Your task to perform on an android device: Show me popular videos on Youtube Image 0: 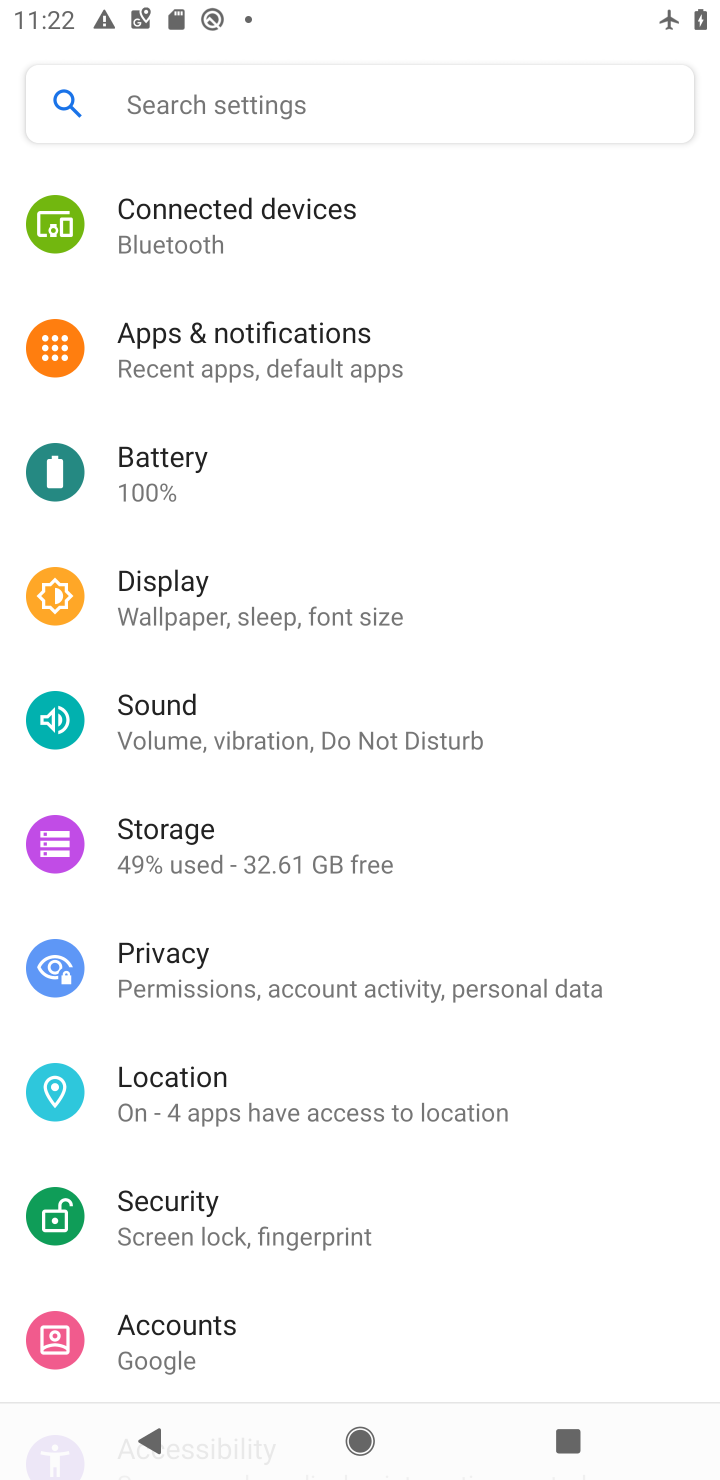
Step 0: press home button
Your task to perform on an android device: Show me popular videos on Youtube Image 1: 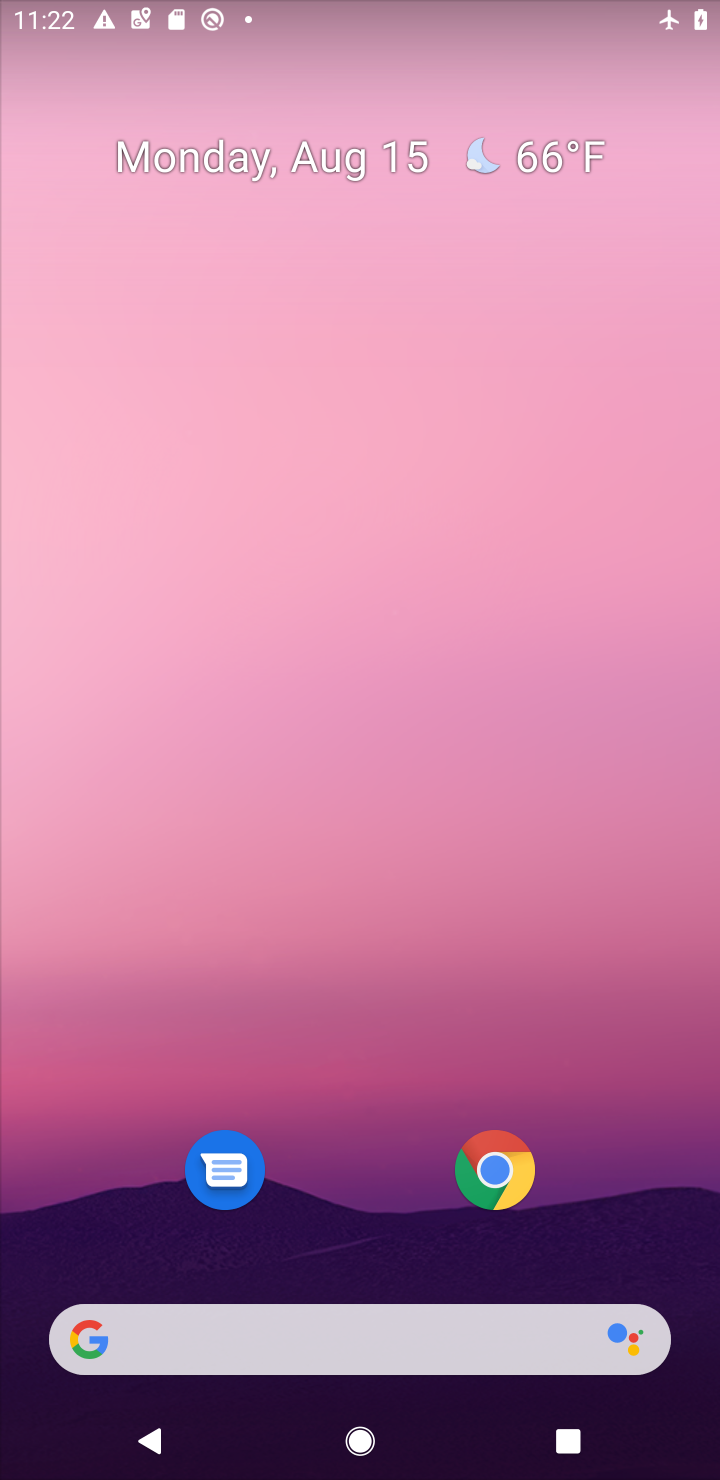
Step 1: drag from (396, 1232) to (407, 0)
Your task to perform on an android device: Show me popular videos on Youtube Image 2: 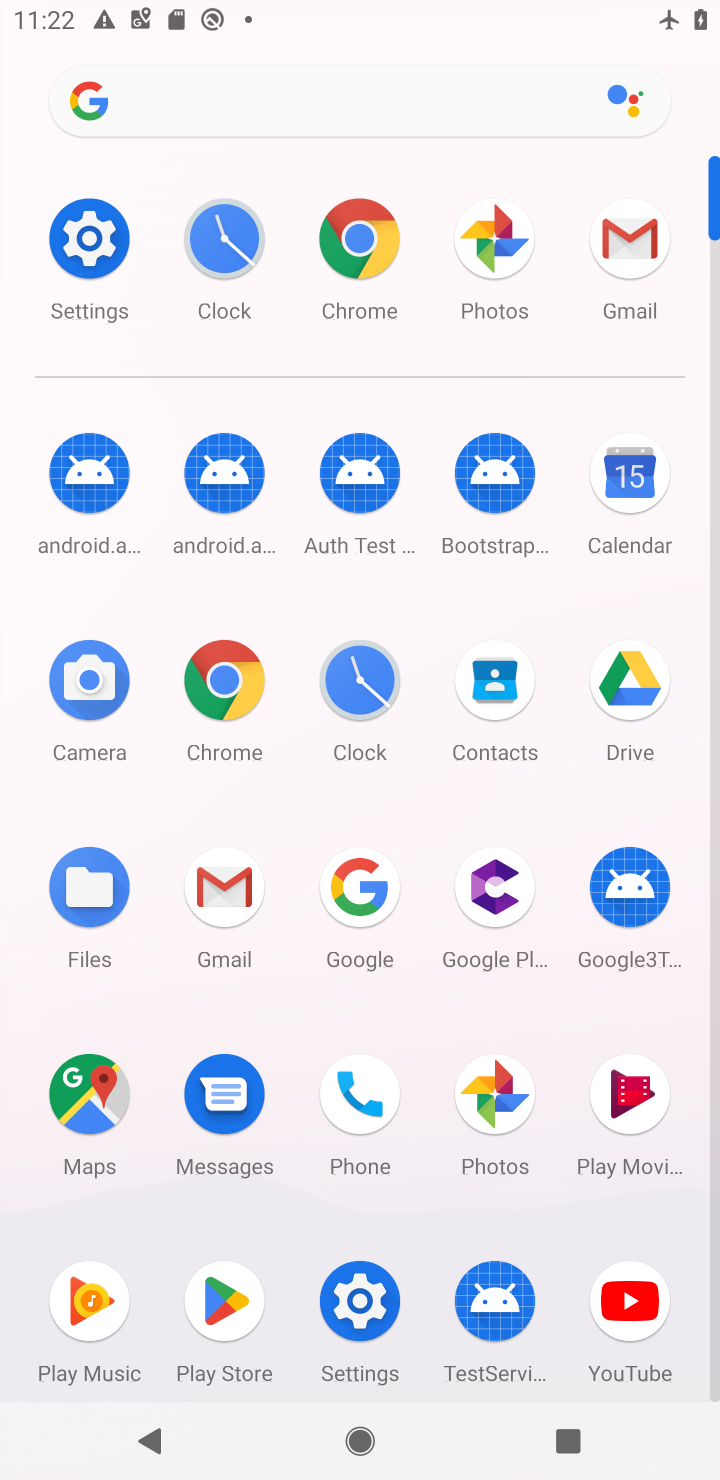
Step 2: click (628, 1292)
Your task to perform on an android device: Show me popular videos on Youtube Image 3: 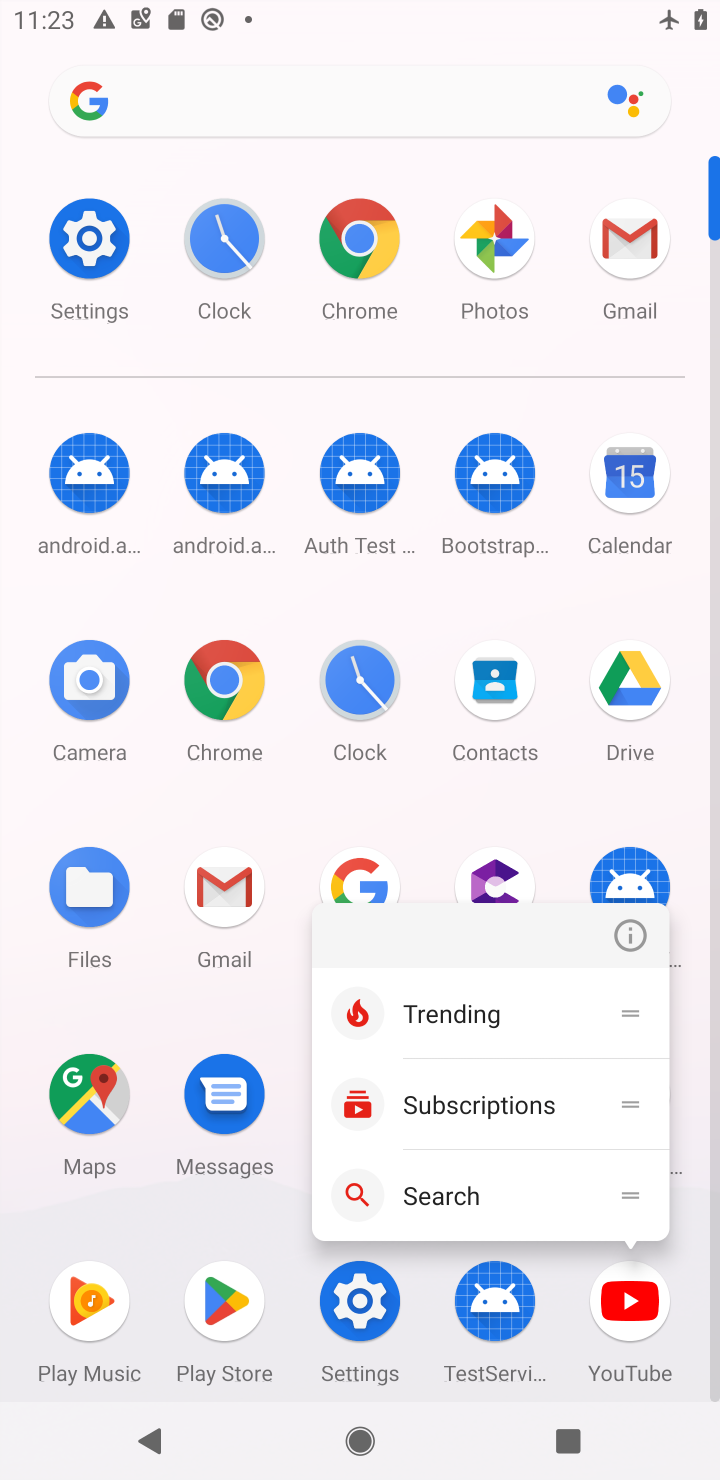
Step 3: click (625, 1299)
Your task to perform on an android device: Show me popular videos on Youtube Image 4: 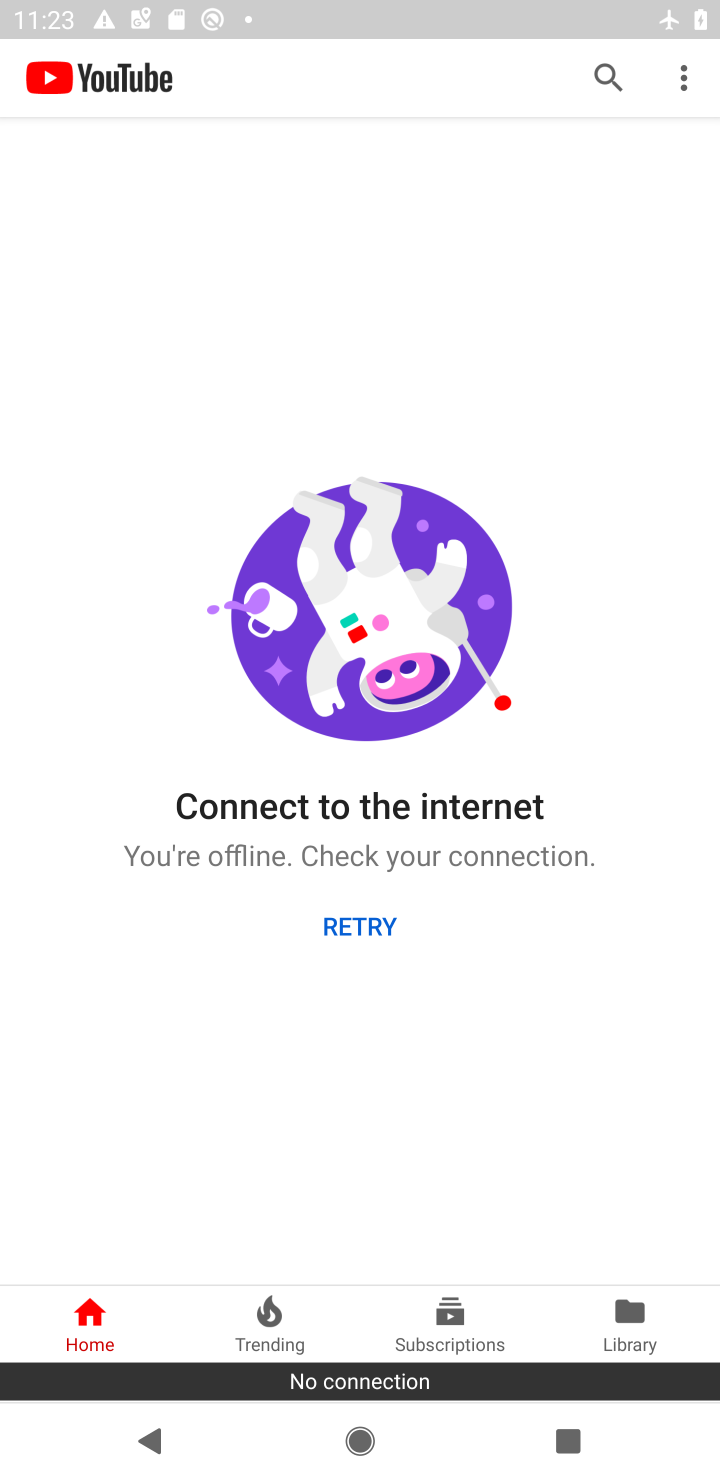
Step 4: task complete